Your task to perform on an android device: Set the phone to "Do not disturb". Image 0: 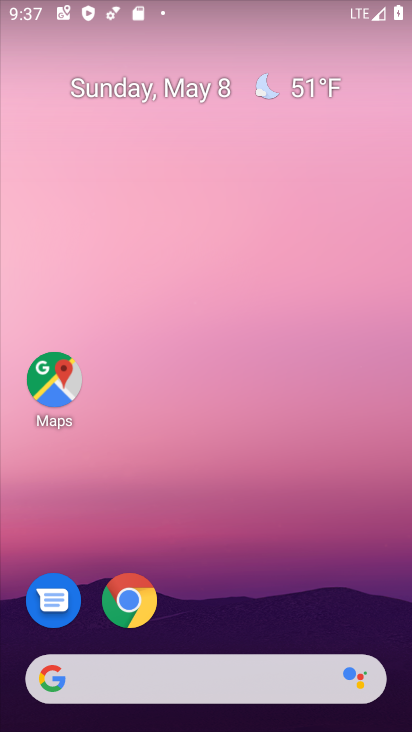
Step 0: drag from (343, 625) to (347, 11)
Your task to perform on an android device: Set the phone to "Do not disturb". Image 1: 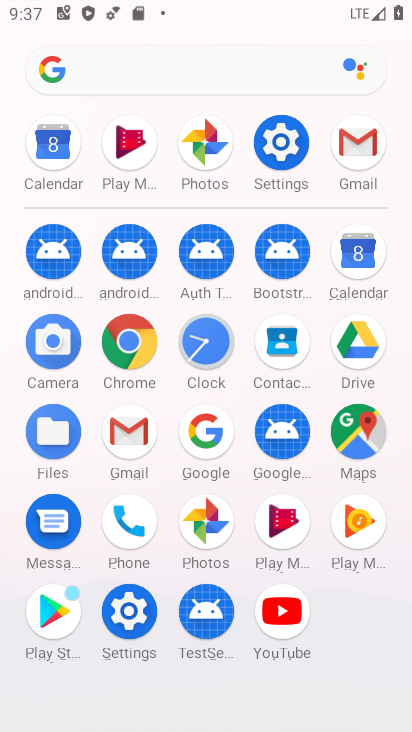
Step 1: click (284, 153)
Your task to perform on an android device: Set the phone to "Do not disturb". Image 2: 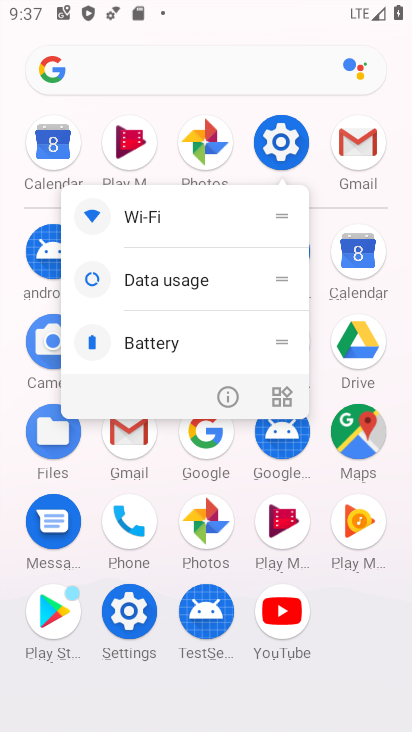
Step 2: click (282, 154)
Your task to perform on an android device: Set the phone to "Do not disturb". Image 3: 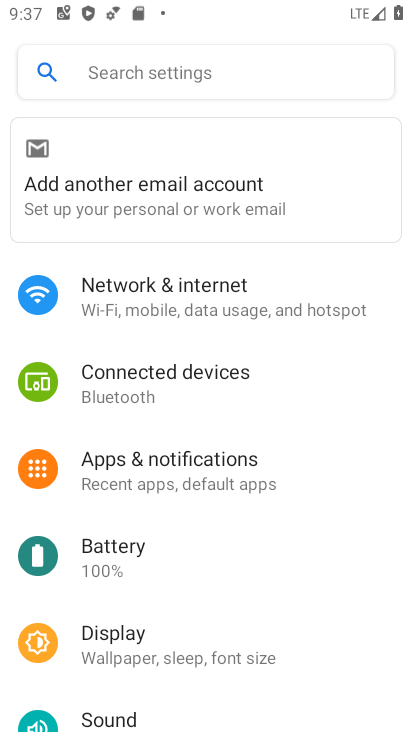
Step 3: drag from (312, 667) to (315, 349)
Your task to perform on an android device: Set the phone to "Do not disturb". Image 4: 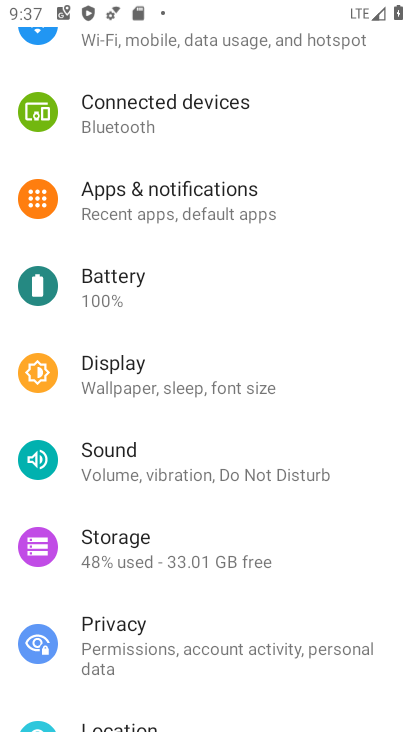
Step 4: click (127, 468)
Your task to perform on an android device: Set the phone to "Do not disturb". Image 5: 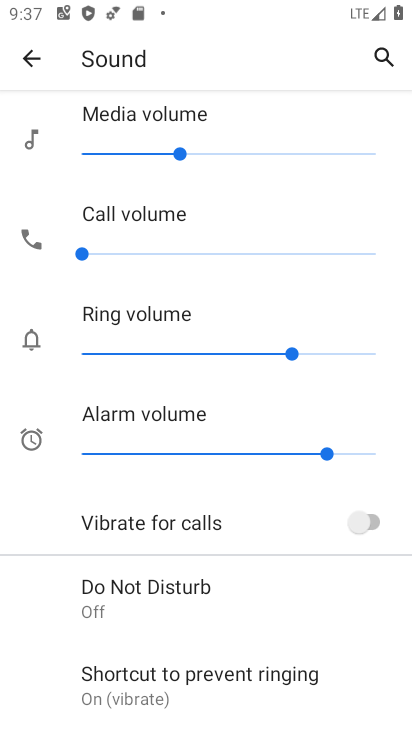
Step 5: click (180, 590)
Your task to perform on an android device: Set the phone to "Do not disturb". Image 6: 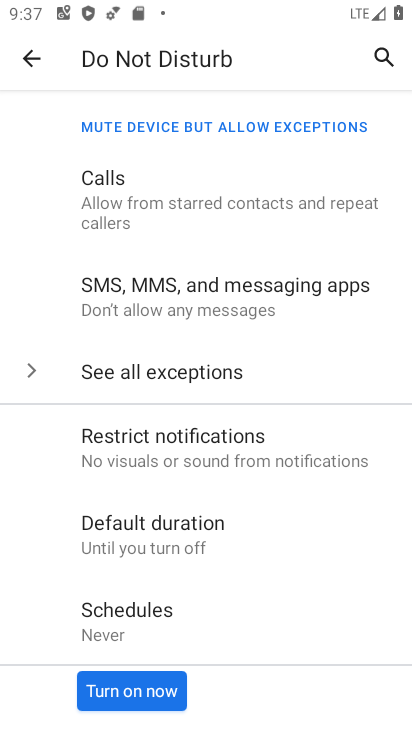
Step 6: click (174, 685)
Your task to perform on an android device: Set the phone to "Do not disturb". Image 7: 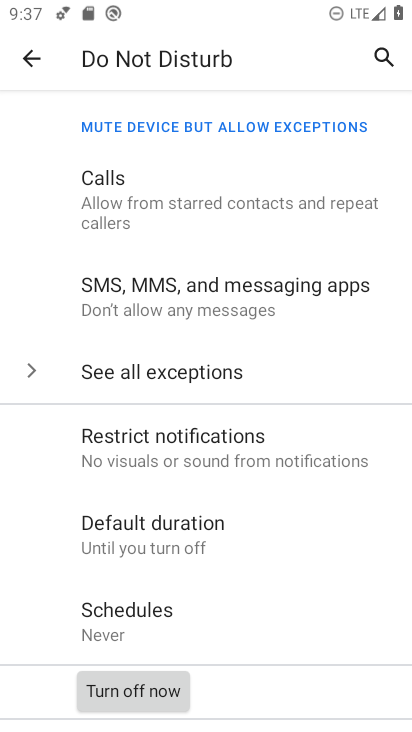
Step 7: task complete